Your task to perform on an android device: turn on notifications settings in the gmail app Image 0: 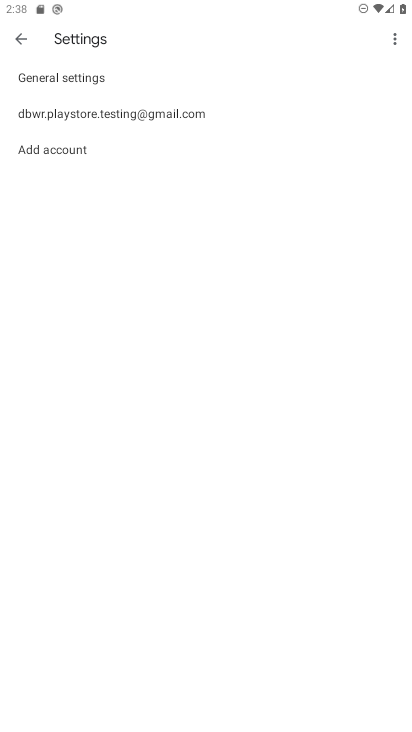
Step 0: press home button
Your task to perform on an android device: turn on notifications settings in the gmail app Image 1: 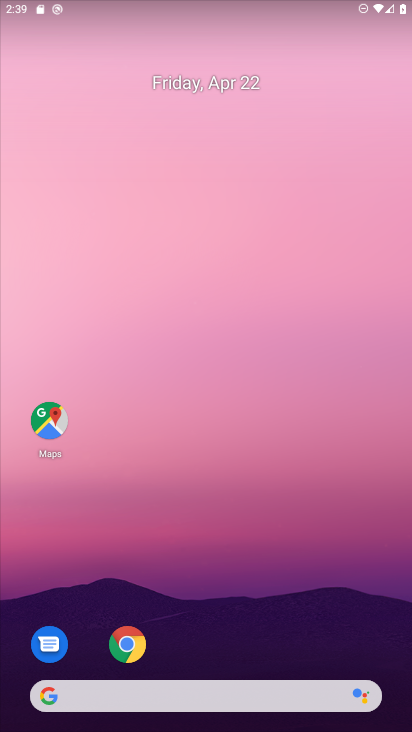
Step 1: drag from (220, 456) to (173, 68)
Your task to perform on an android device: turn on notifications settings in the gmail app Image 2: 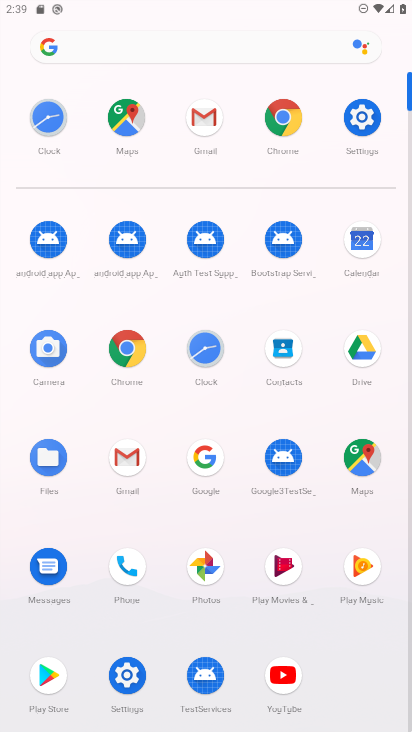
Step 2: click (118, 461)
Your task to perform on an android device: turn on notifications settings in the gmail app Image 3: 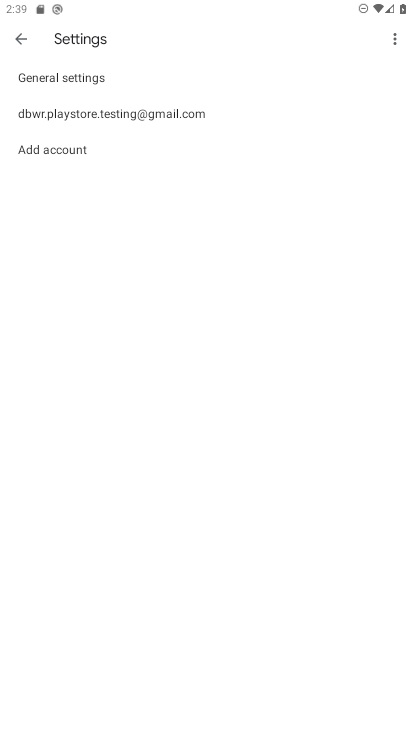
Step 3: click (82, 119)
Your task to perform on an android device: turn on notifications settings in the gmail app Image 4: 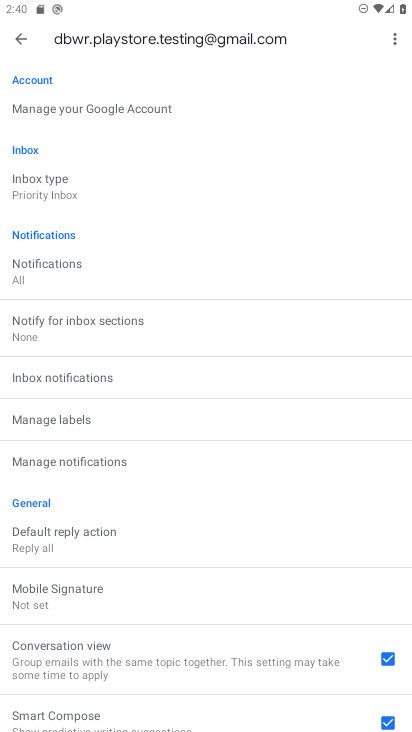
Step 4: click (86, 460)
Your task to perform on an android device: turn on notifications settings in the gmail app Image 5: 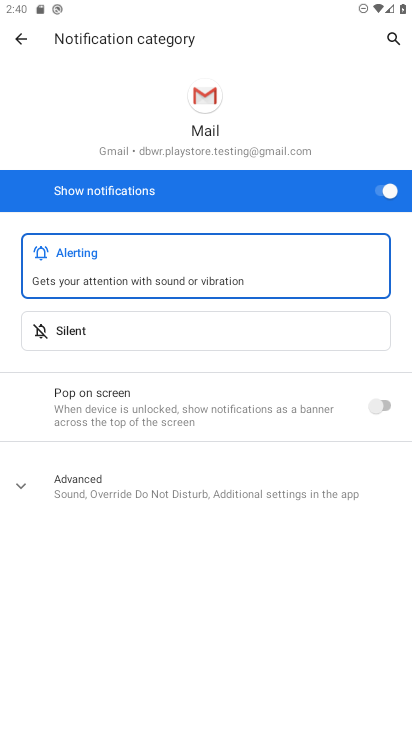
Step 5: task complete